Your task to perform on an android device: toggle show notifications on the lock screen Image 0: 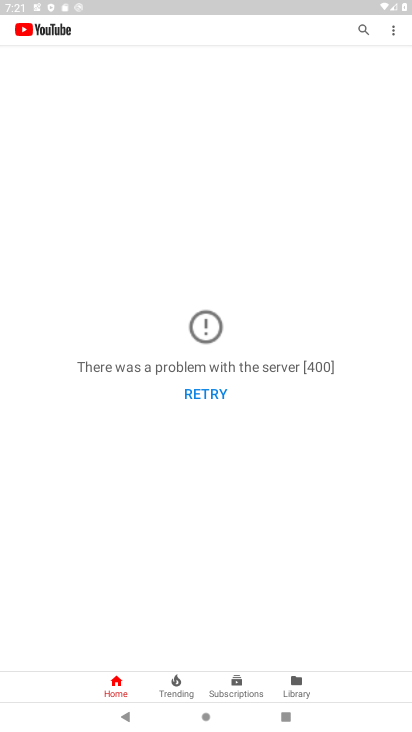
Step 0: press home button
Your task to perform on an android device: toggle show notifications on the lock screen Image 1: 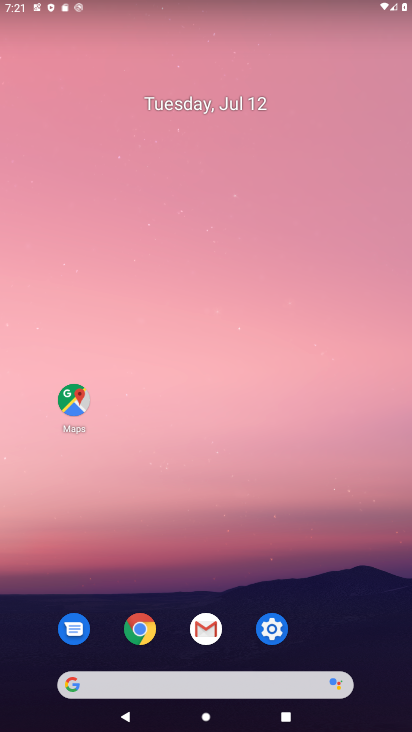
Step 1: click (270, 632)
Your task to perform on an android device: toggle show notifications on the lock screen Image 2: 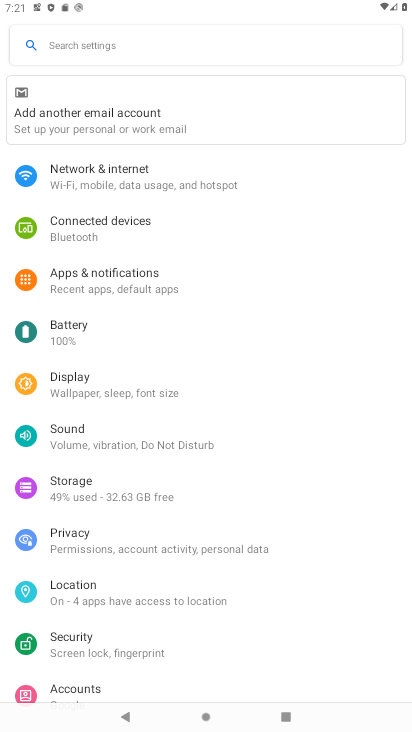
Step 2: click (111, 50)
Your task to perform on an android device: toggle show notifications on the lock screen Image 3: 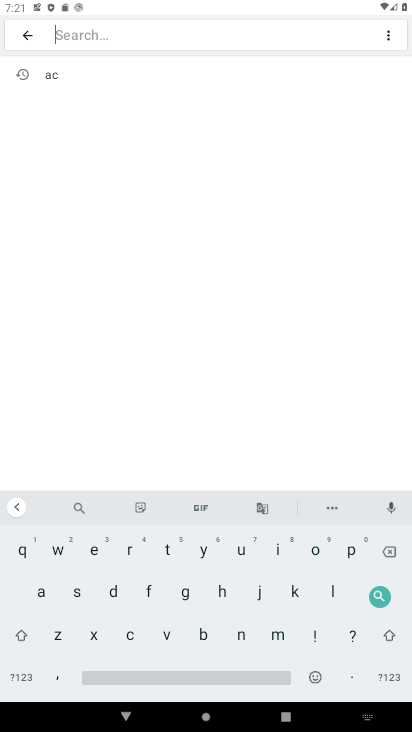
Step 3: click (238, 638)
Your task to perform on an android device: toggle show notifications on the lock screen Image 4: 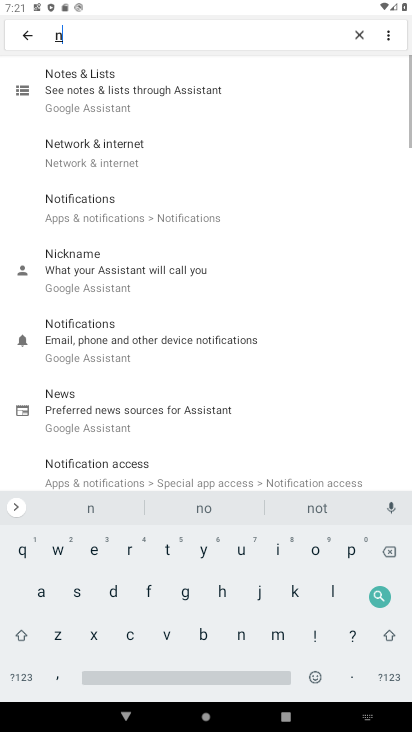
Step 4: click (312, 543)
Your task to perform on an android device: toggle show notifications on the lock screen Image 5: 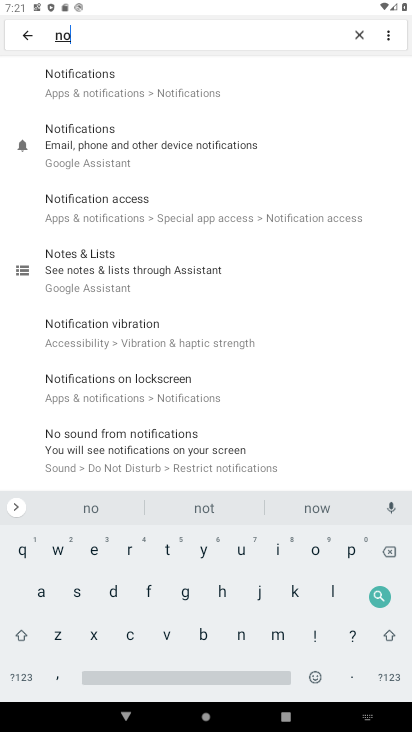
Step 5: click (157, 98)
Your task to perform on an android device: toggle show notifications on the lock screen Image 6: 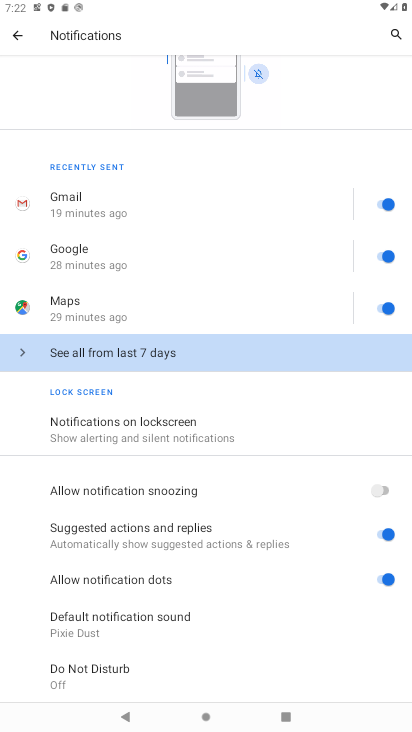
Step 6: click (86, 425)
Your task to perform on an android device: toggle show notifications on the lock screen Image 7: 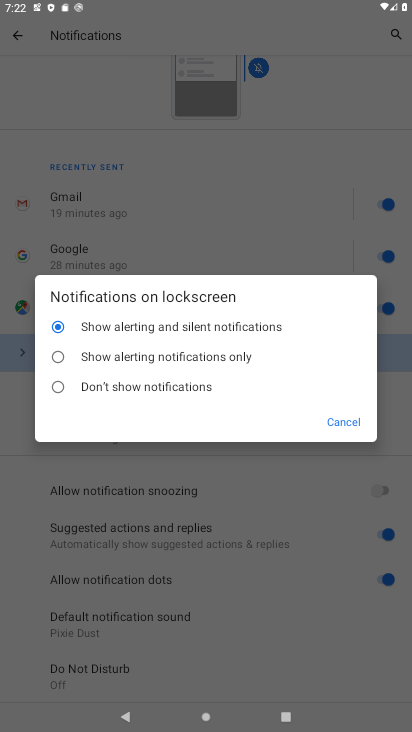
Step 7: task complete